Your task to perform on an android device: Go to Maps Image 0: 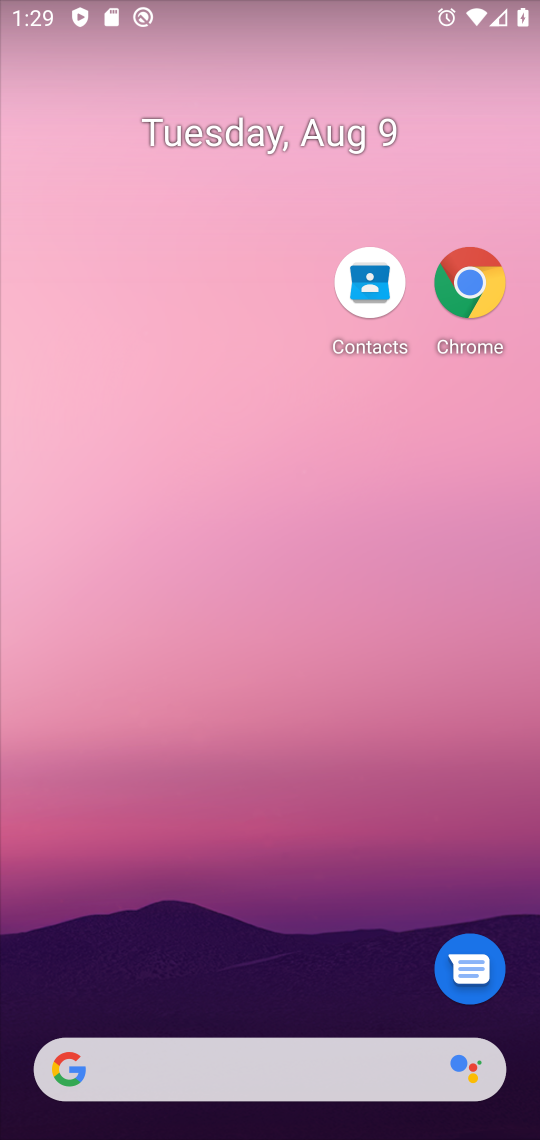
Step 0: drag from (205, 523) to (130, 96)
Your task to perform on an android device: Go to Maps Image 1: 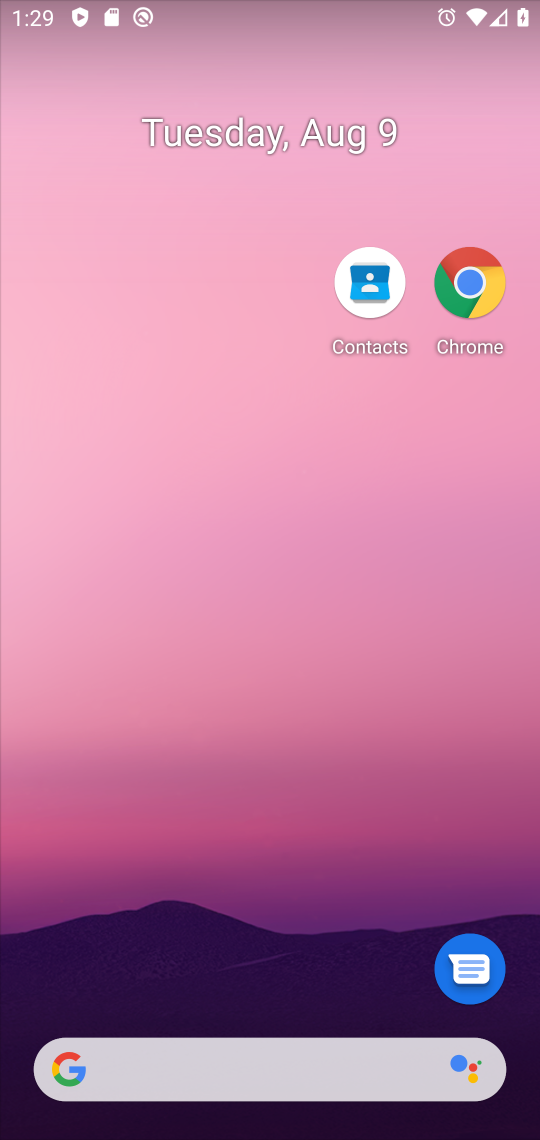
Step 1: drag from (292, 938) to (303, 26)
Your task to perform on an android device: Go to Maps Image 2: 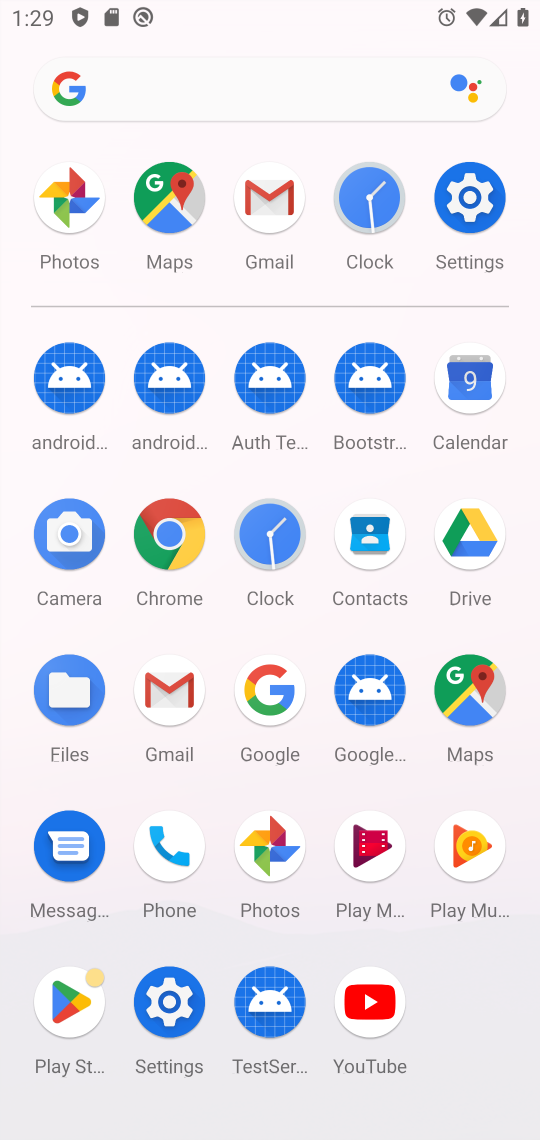
Step 2: click (155, 174)
Your task to perform on an android device: Go to Maps Image 3: 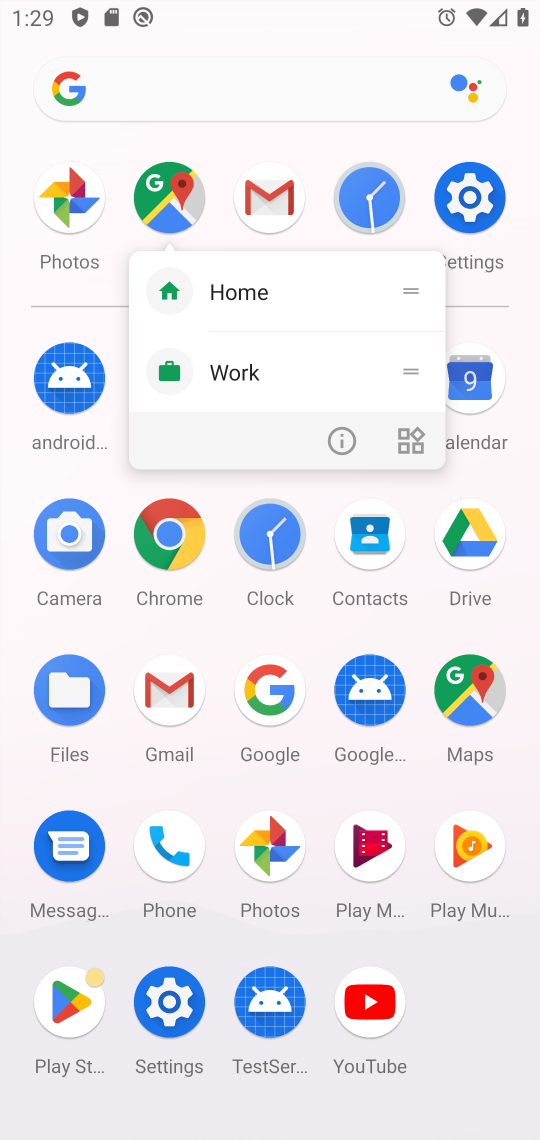
Step 3: click (362, 429)
Your task to perform on an android device: Go to Maps Image 4: 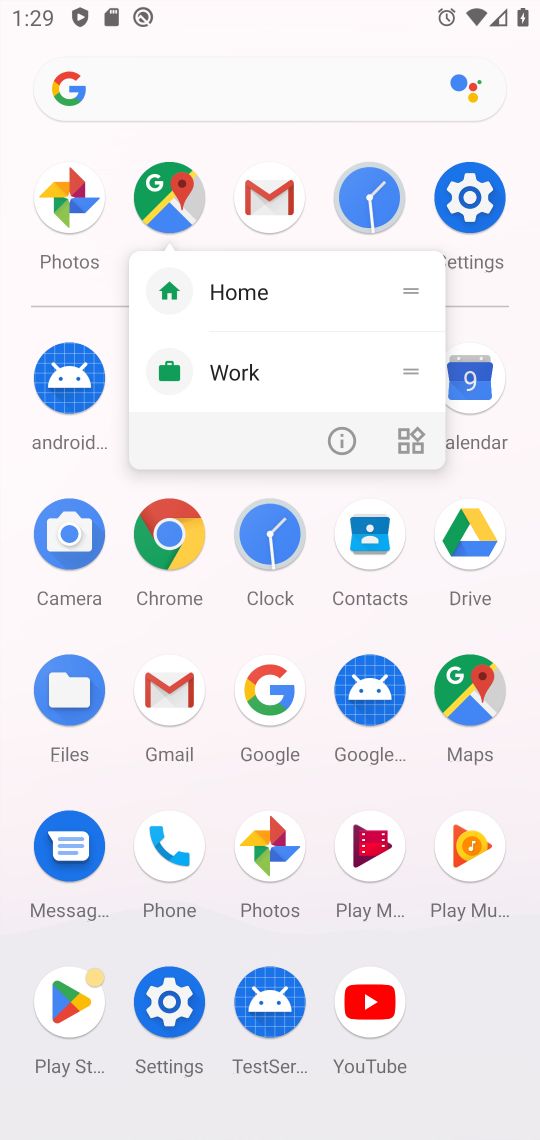
Step 4: click (339, 434)
Your task to perform on an android device: Go to Maps Image 5: 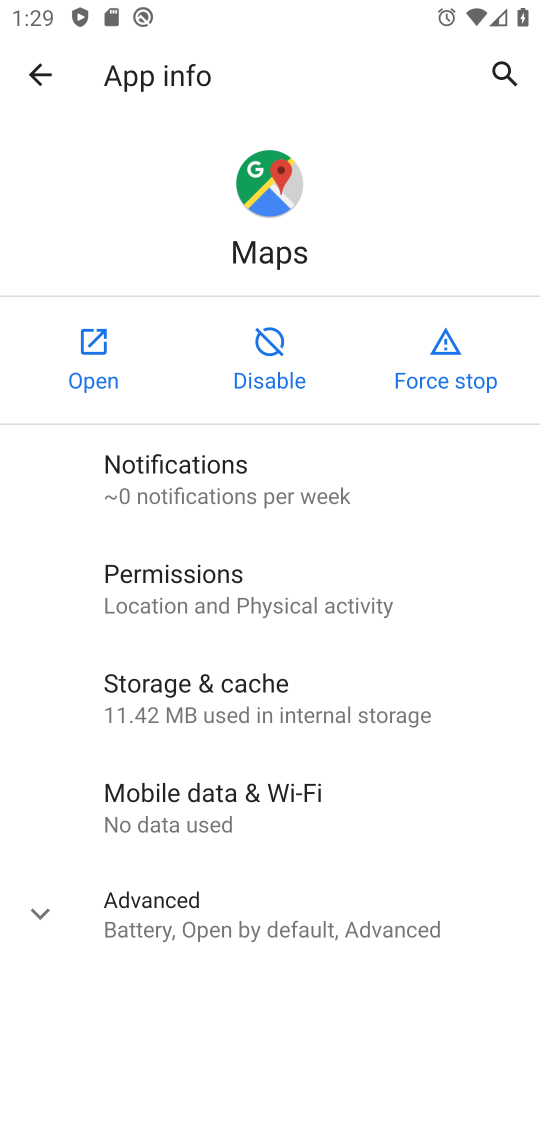
Step 5: click (94, 323)
Your task to perform on an android device: Go to Maps Image 6: 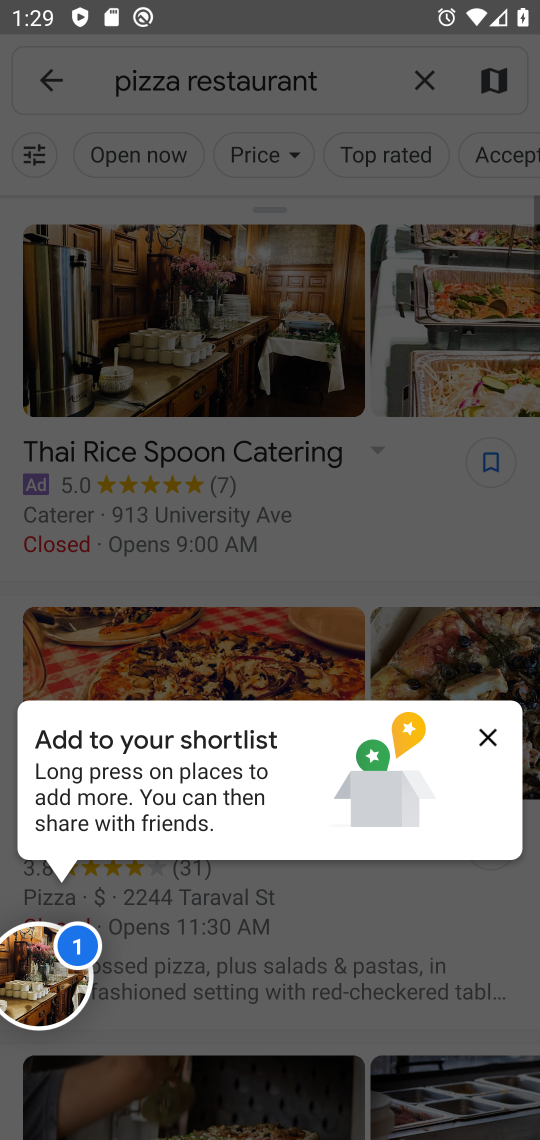
Step 6: click (442, 430)
Your task to perform on an android device: Go to Maps Image 7: 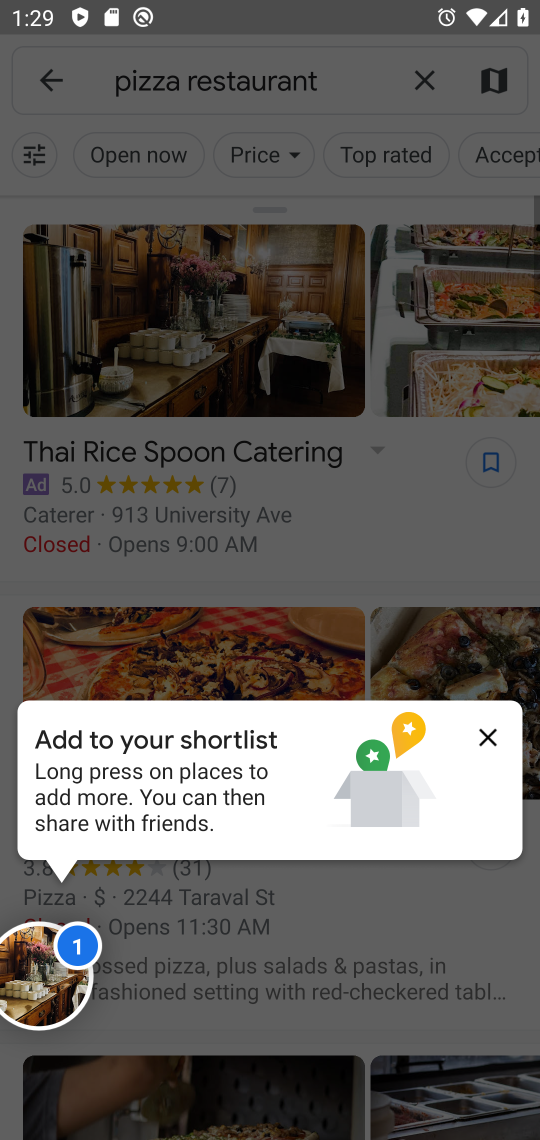
Step 7: task complete